Your task to perform on an android device: turn off data saver in the chrome app Image 0: 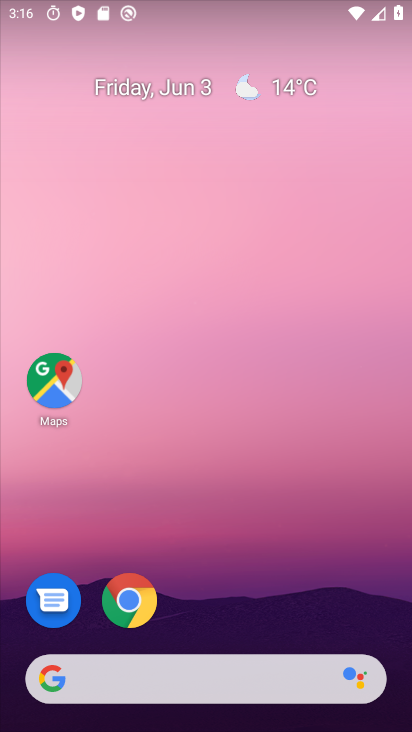
Step 0: click (231, 81)
Your task to perform on an android device: turn off data saver in the chrome app Image 1: 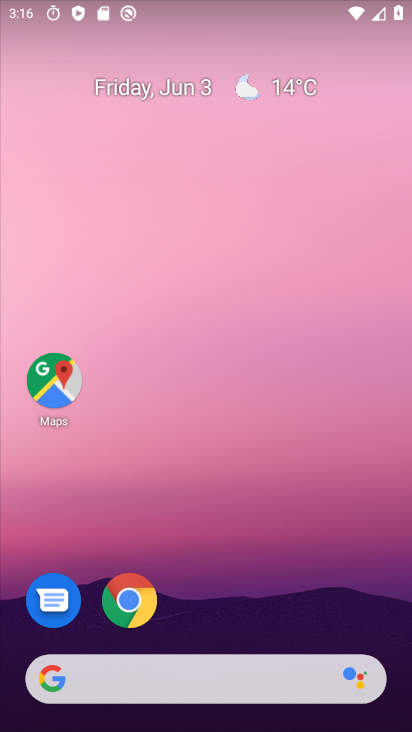
Step 1: drag from (243, 558) to (212, 22)
Your task to perform on an android device: turn off data saver in the chrome app Image 2: 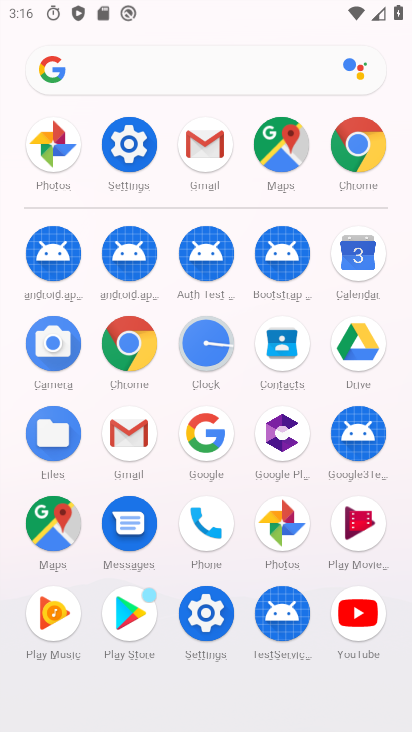
Step 2: drag from (13, 519) to (23, 176)
Your task to perform on an android device: turn off data saver in the chrome app Image 3: 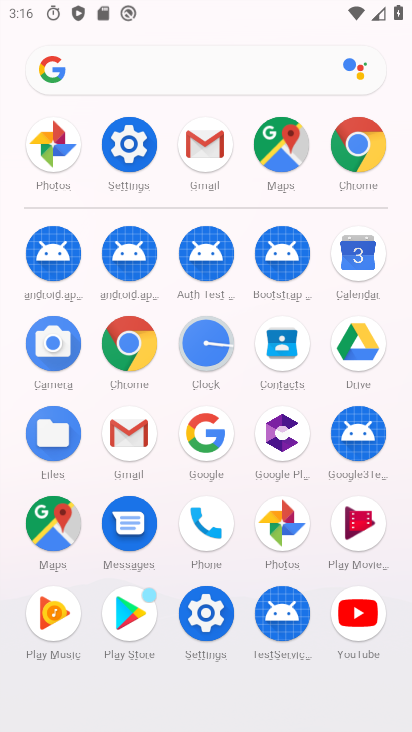
Step 3: click (131, 339)
Your task to perform on an android device: turn off data saver in the chrome app Image 4: 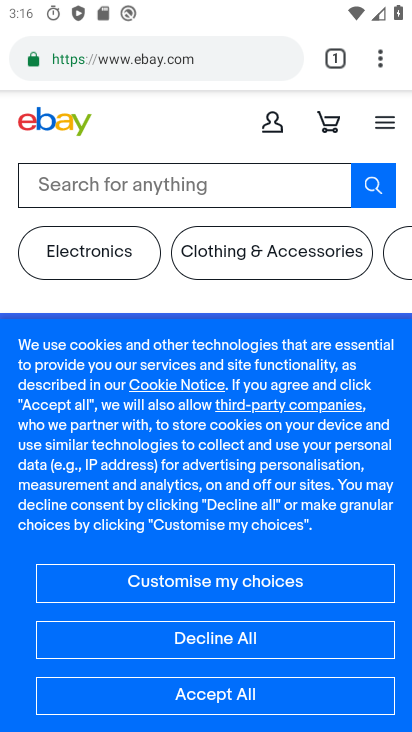
Step 4: drag from (381, 56) to (167, 625)
Your task to perform on an android device: turn off data saver in the chrome app Image 5: 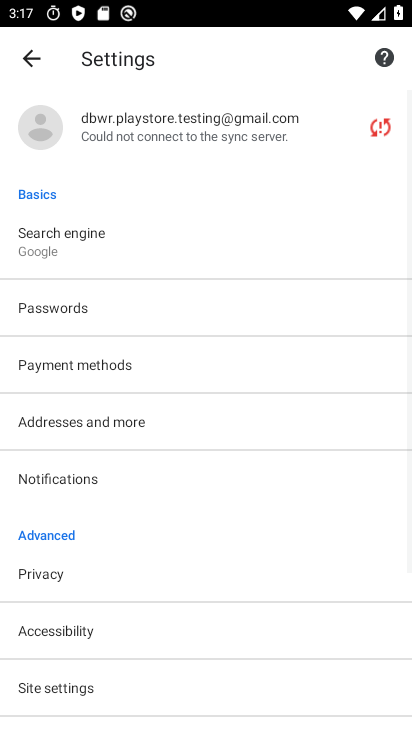
Step 5: drag from (206, 592) to (268, 134)
Your task to perform on an android device: turn off data saver in the chrome app Image 6: 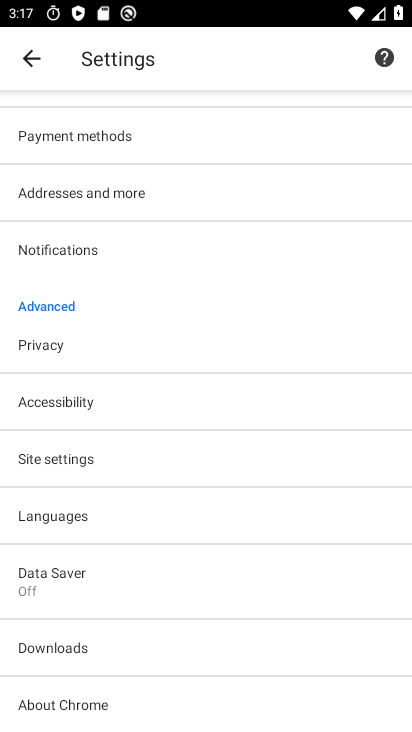
Step 6: click (107, 592)
Your task to perform on an android device: turn off data saver in the chrome app Image 7: 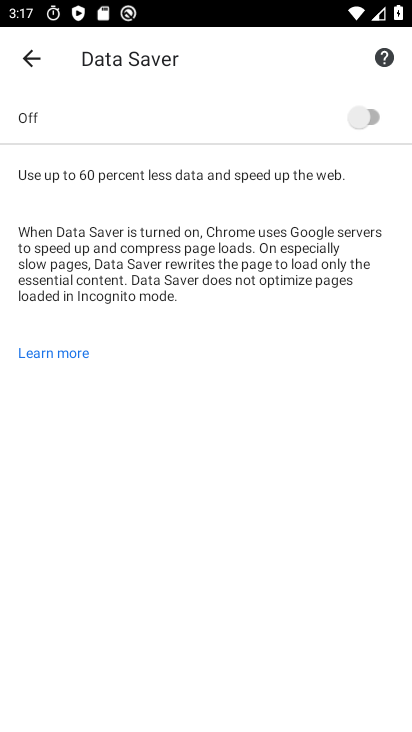
Step 7: task complete